Your task to perform on an android device: Go to privacy settings Image 0: 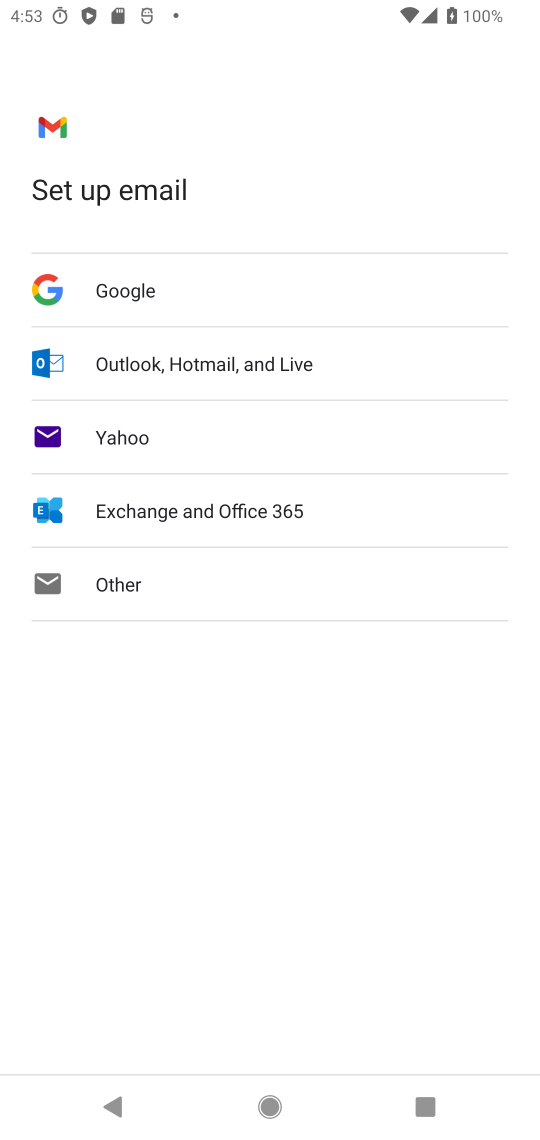
Step 0: press home button
Your task to perform on an android device: Go to privacy settings Image 1: 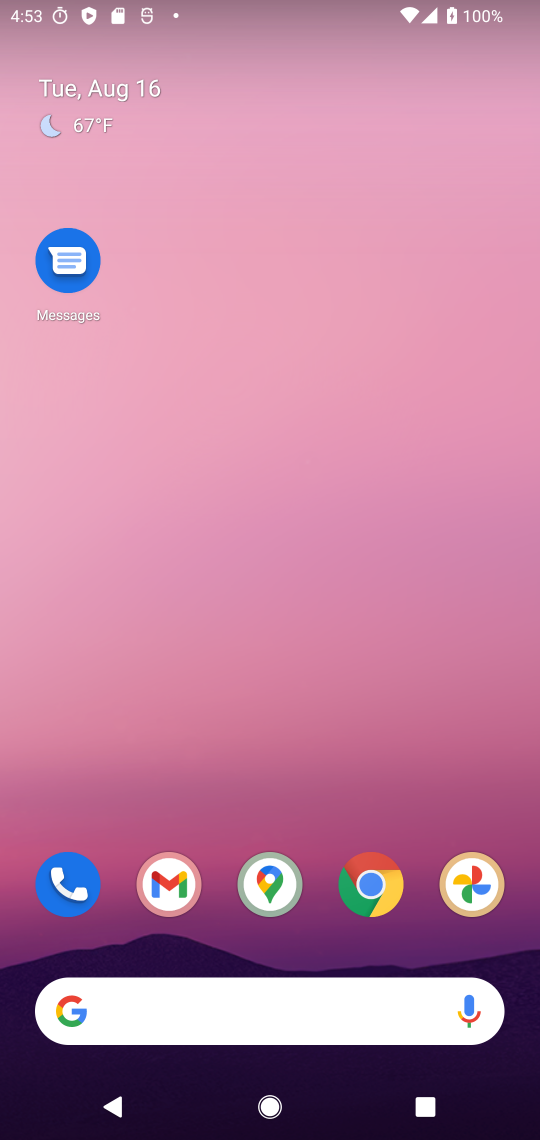
Step 1: drag from (73, 1073) to (239, 329)
Your task to perform on an android device: Go to privacy settings Image 2: 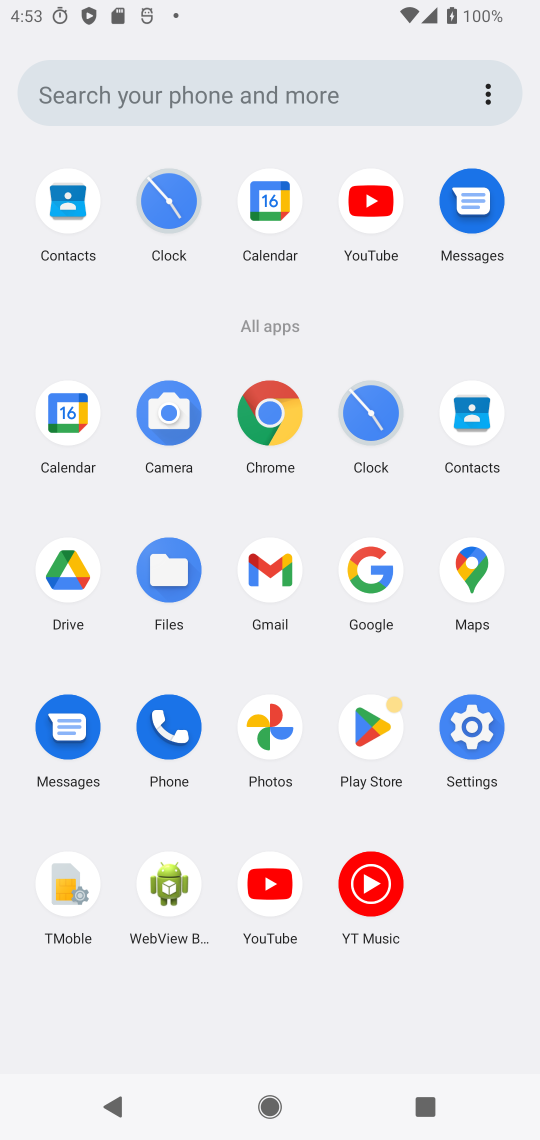
Step 2: click (442, 731)
Your task to perform on an android device: Go to privacy settings Image 3: 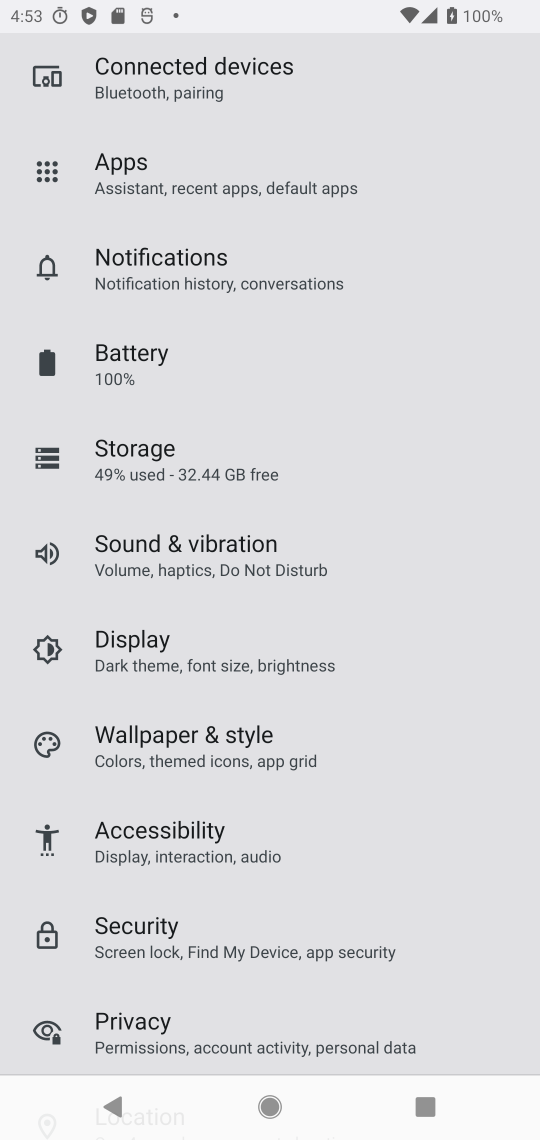
Step 3: click (177, 1018)
Your task to perform on an android device: Go to privacy settings Image 4: 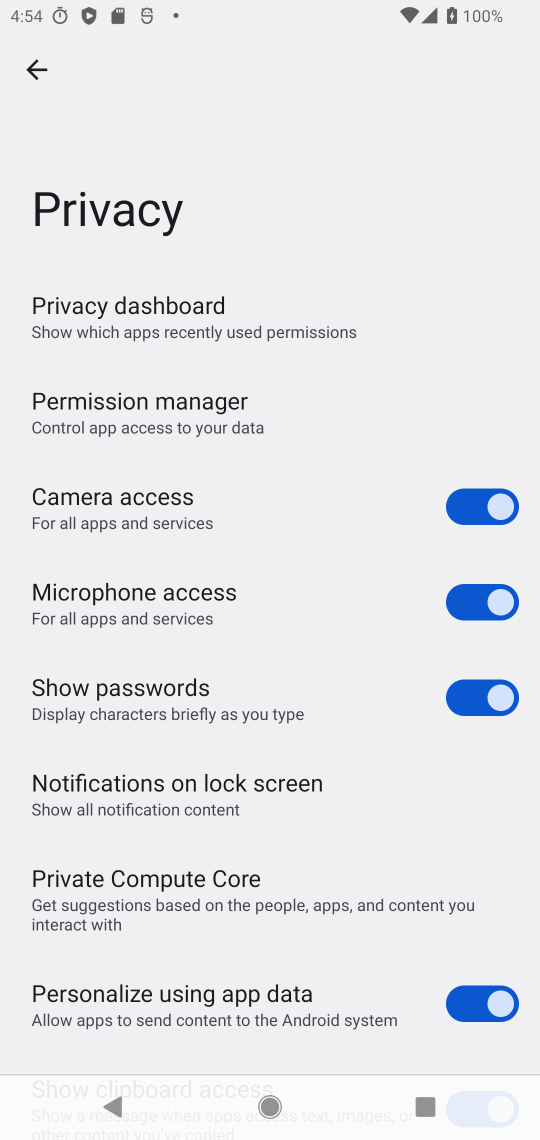
Step 4: click (177, 1018)
Your task to perform on an android device: Go to privacy settings Image 5: 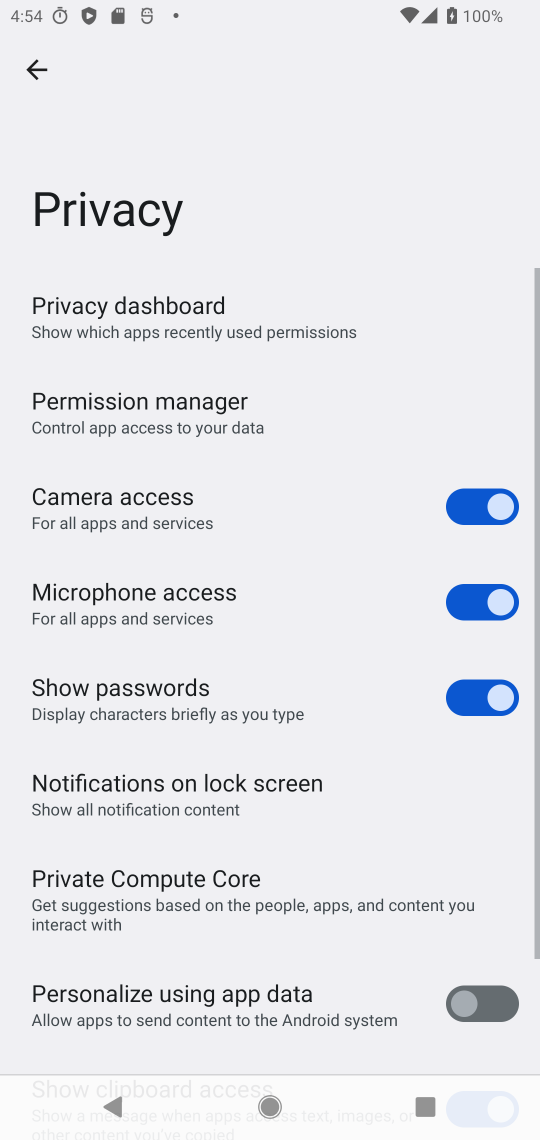
Step 5: click (177, 1018)
Your task to perform on an android device: Go to privacy settings Image 6: 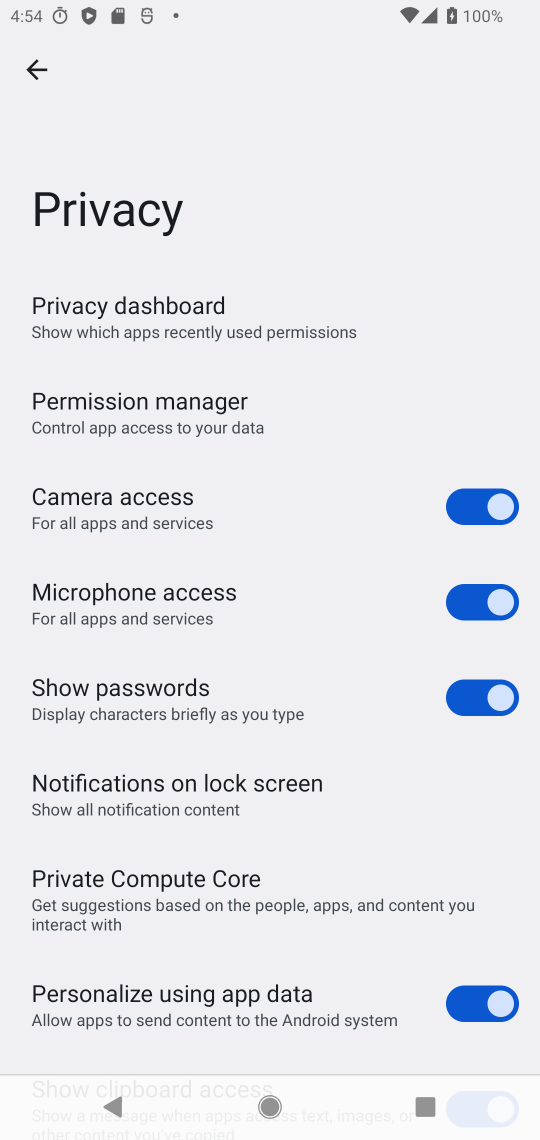
Step 6: task complete